Your task to perform on an android device: Open Google Chrome and click the shortcut for Amazon.com Image 0: 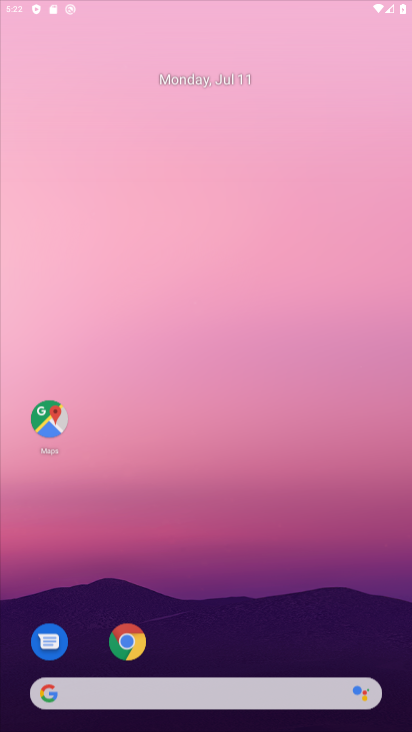
Step 0: drag from (362, 158) to (356, 17)
Your task to perform on an android device: Open Google Chrome and click the shortcut for Amazon.com Image 1: 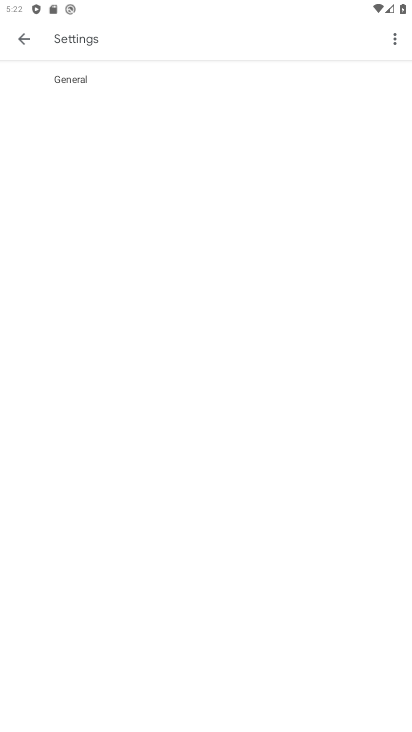
Step 1: press home button
Your task to perform on an android device: Open Google Chrome and click the shortcut for Amazon.com Image 2: 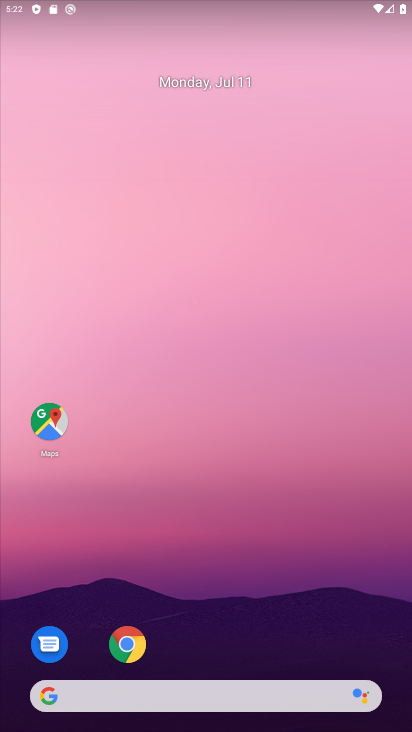
Step 2: drag from (294, 674) to (314, 52)
Your task to perform on an android device: Open Google Chrome and click the shortcut for Amazon.com Image 3: 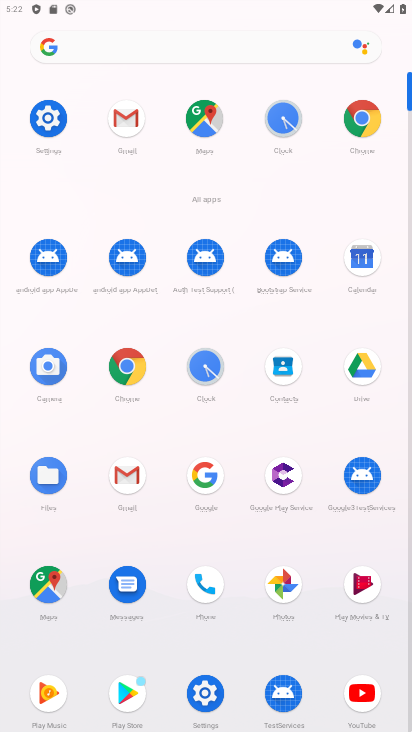
Step 3: click (126, 368)
Your task to perform on an android device: Open Google Chrome and click the shortcut for Amazon.com Image 4: 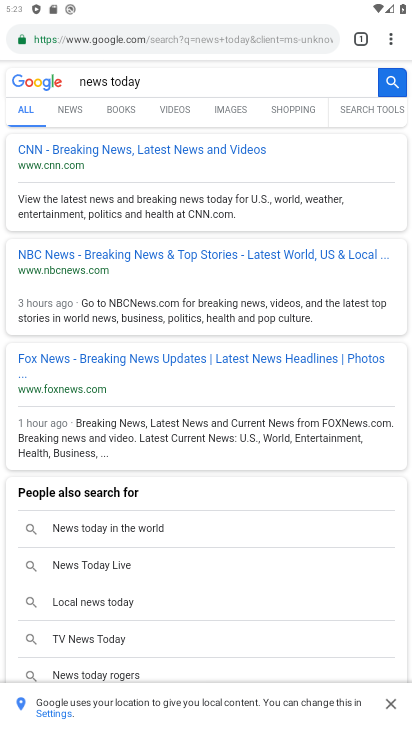
Step 4: drag from (395, 40) to (328, 74)
Your task to perform on an android device: Open Google Chrome and click the shortcut for Amazon.com Image 5: 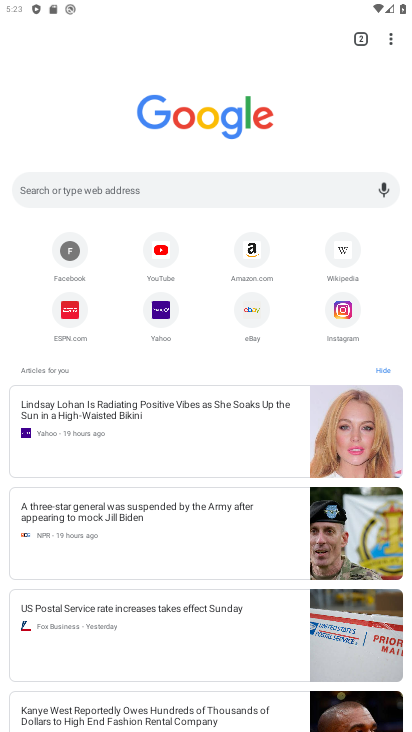
Step 5: click (247, 253)
Your task to perform on an android device: Open Google Chrome and click the shortcut for Amazon.com Image 6: 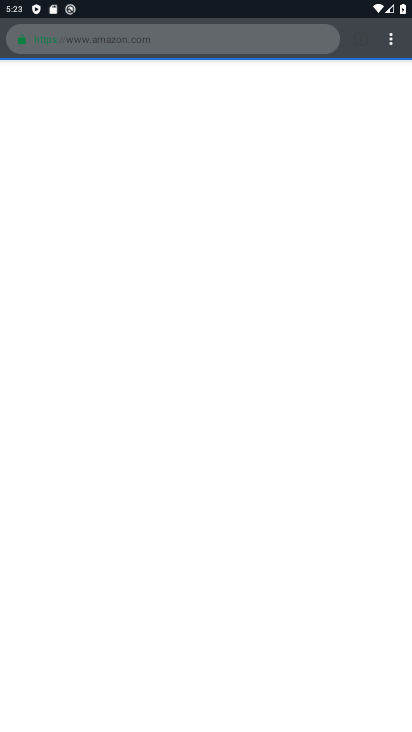
Step 6: drag from (391, 39) to (238, 403)
Your task to perform on an android device: Open Google Chrome and click the shortcut for Amazon.com Image 7: 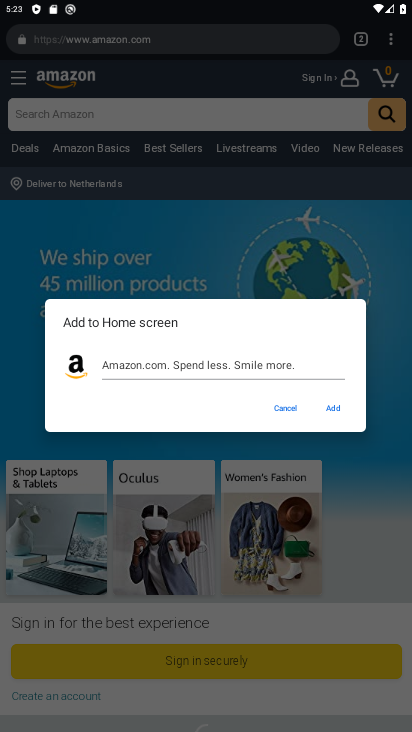
Step 7: click (336, 413)
Your task to perform on an android device: Open Google Chrome and click the shortcut for Amazon.com Image 8: 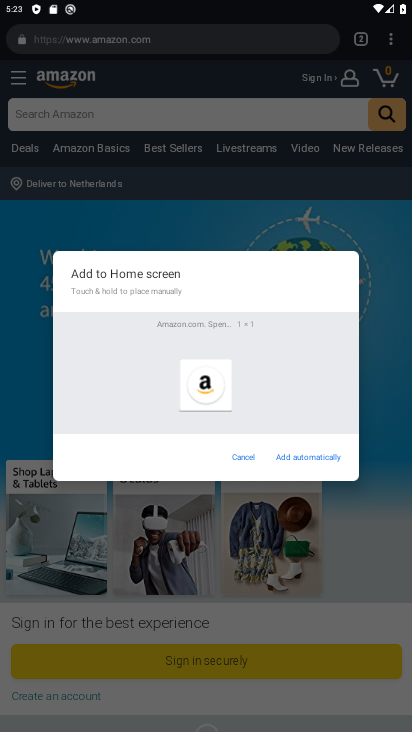
Step 8: click (312, 457)
Your task to perform on an android device: Open Google Chrome and click the shortcut for Amazon.com Image 9: 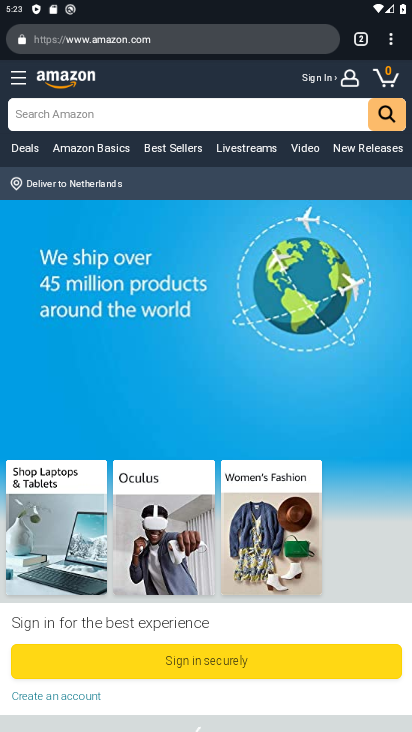
Step 9: task complete